Your task to perform on an android device: toggle priority inbox in the gmail app Image 0: 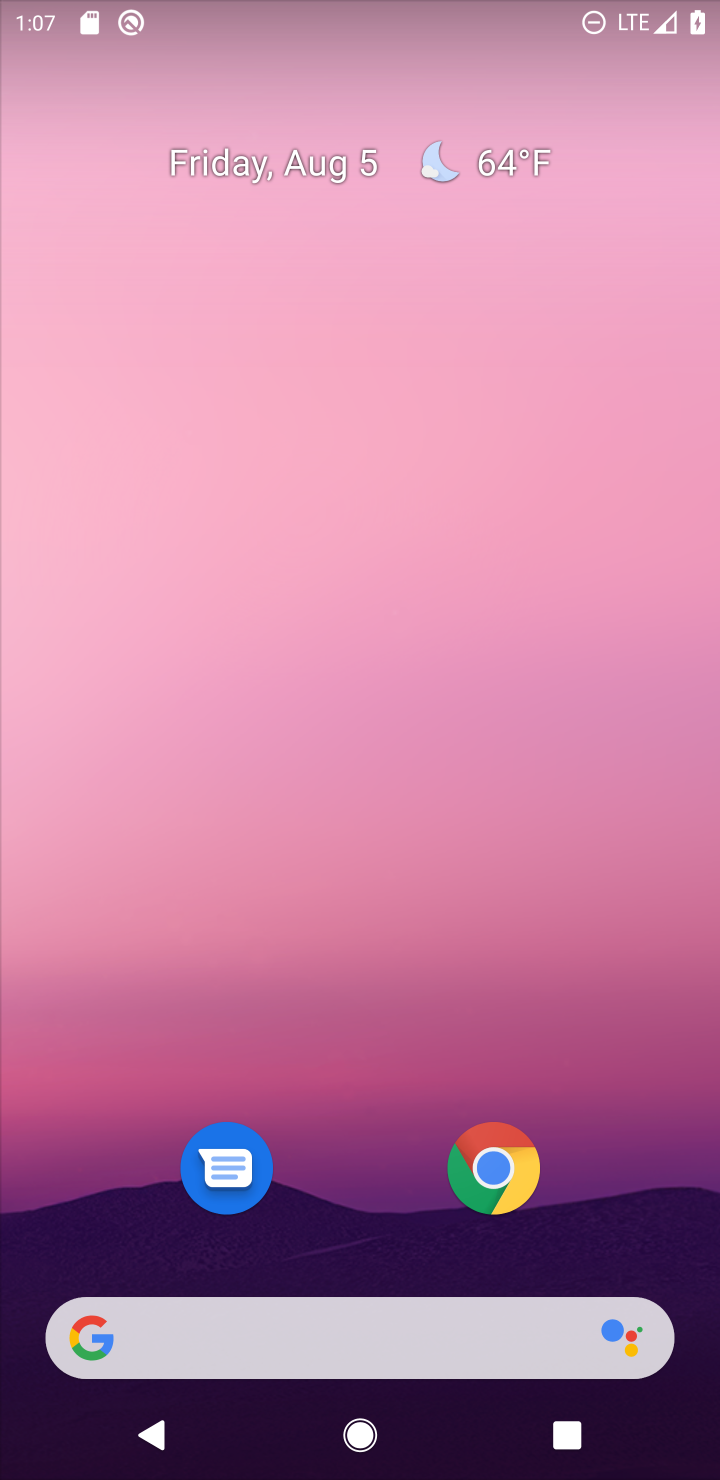
Step 0: drag from (610, 1200) to (455, 7)
Your task to perform on an android device: toggle priority inbox in the gmail app Image 1: 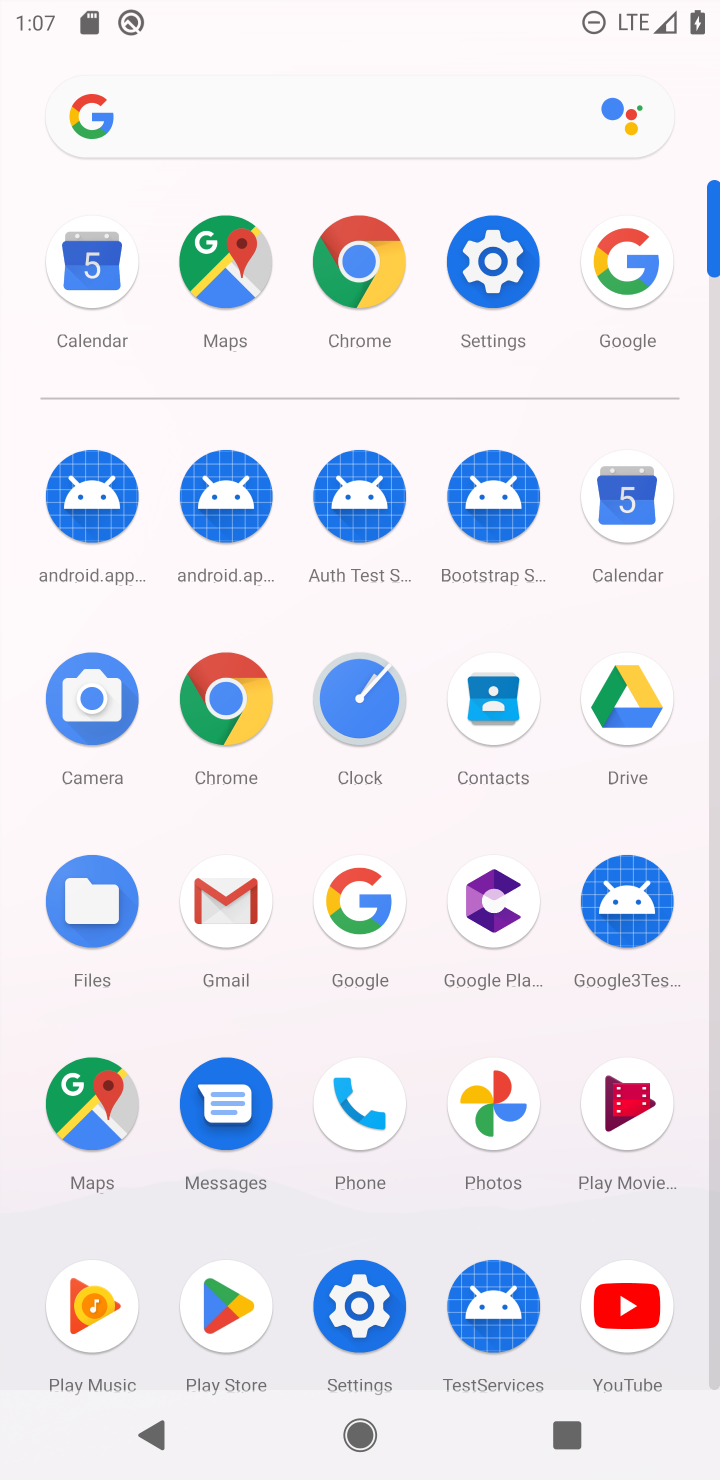
Step 1: click (234, 952)
Your task to perform on an android device: toggle priority inbox in the gmail app Image 2: 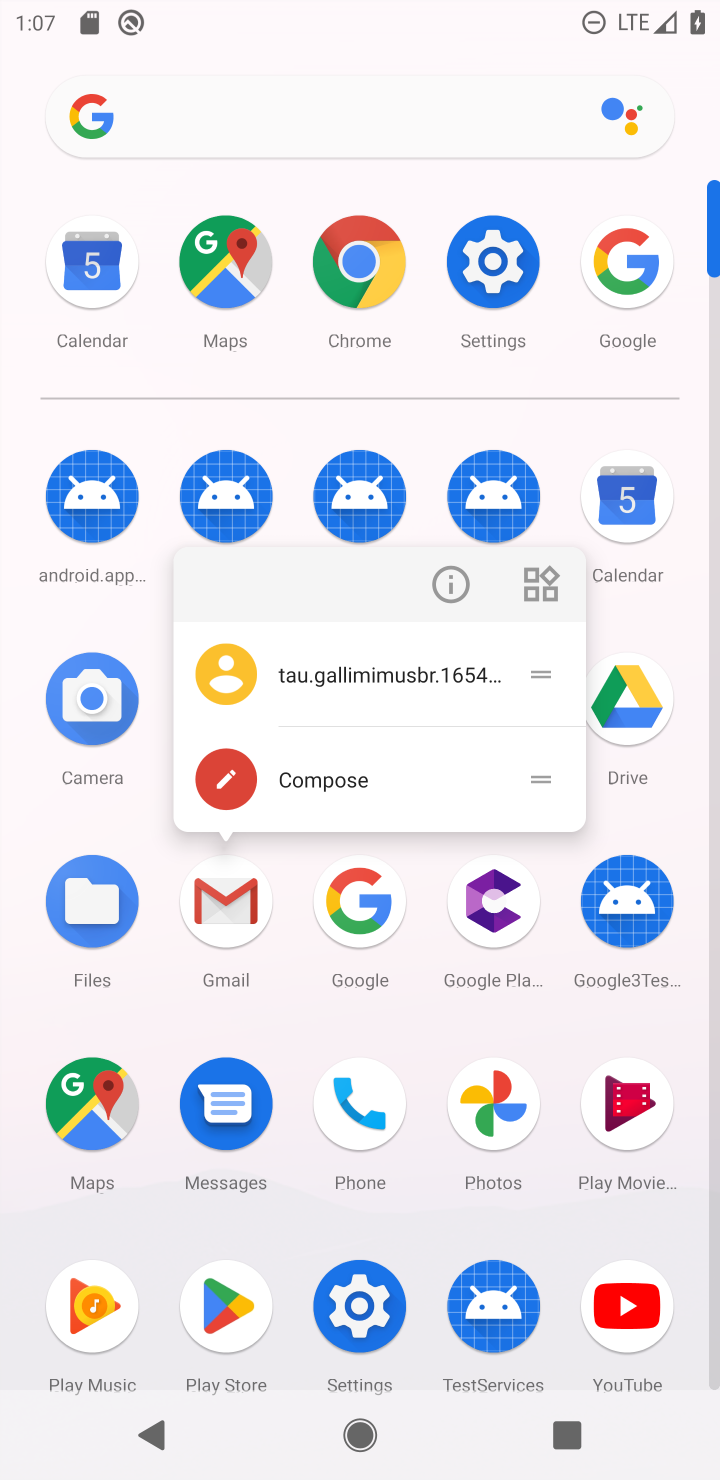
Step 2: click (233, 949)
Your task to perform on an android device: toggle priority inbox in the gmail app Image 3: 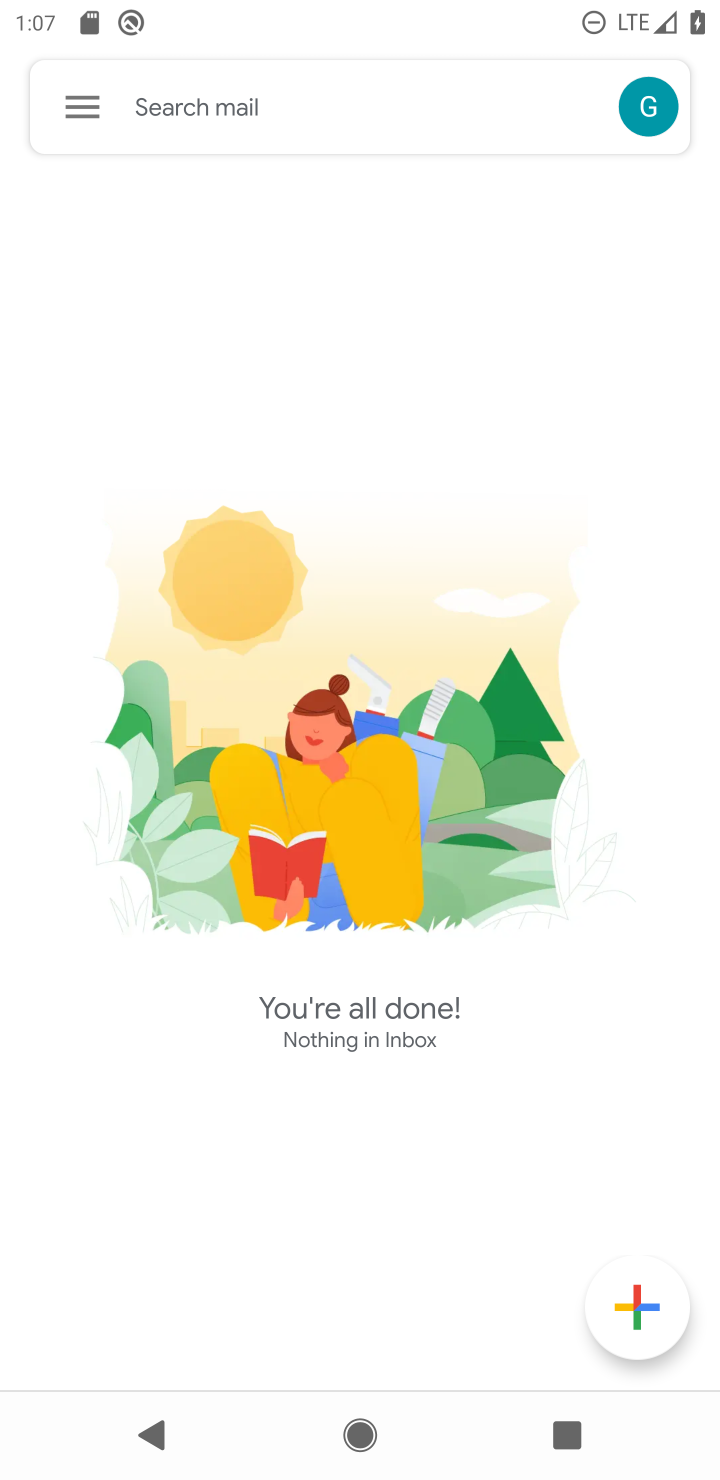
Step 3: click (97, 109)
Your task to perform on an android device: toggle priority inbox in the gmail app Image 4: 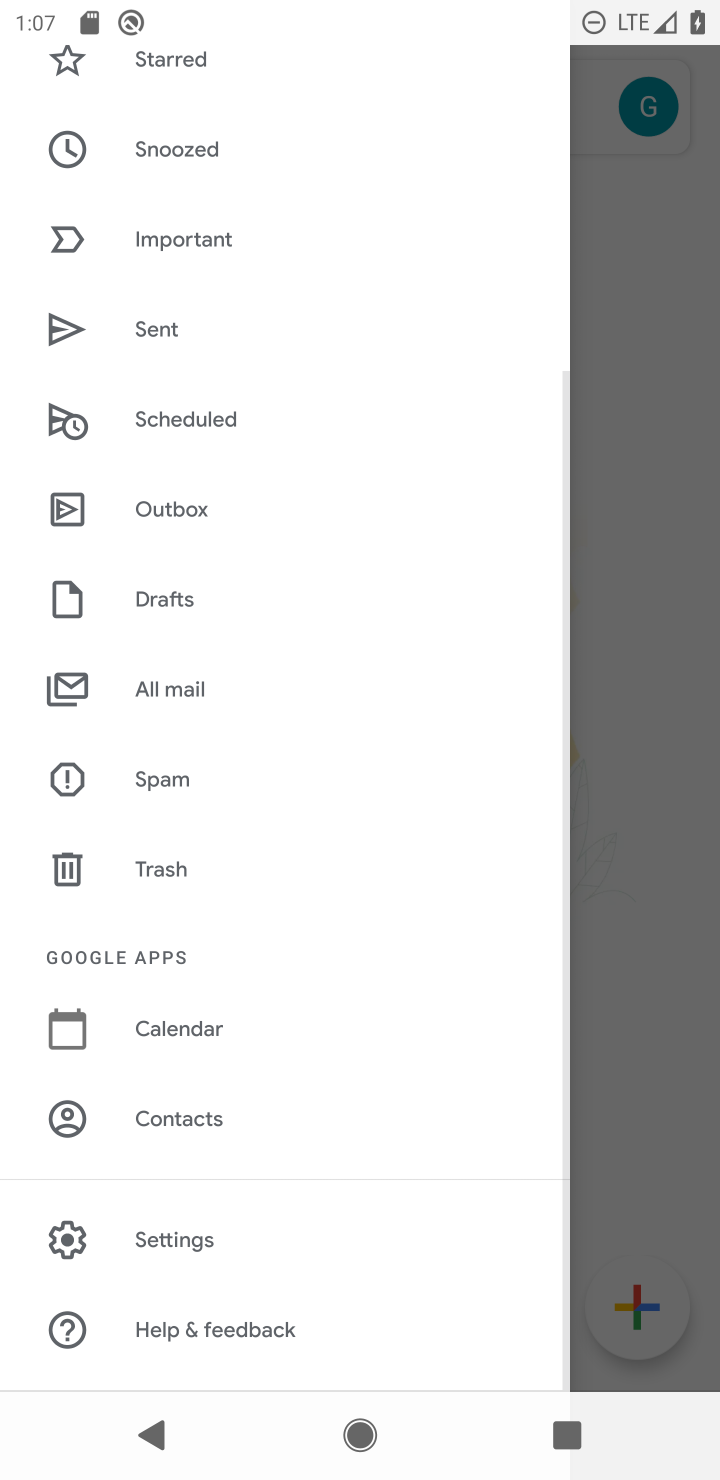
Step 4: click (186, 1255)
Your task to perform on an android device: toggle priority inbox in the gmail app Image 5: 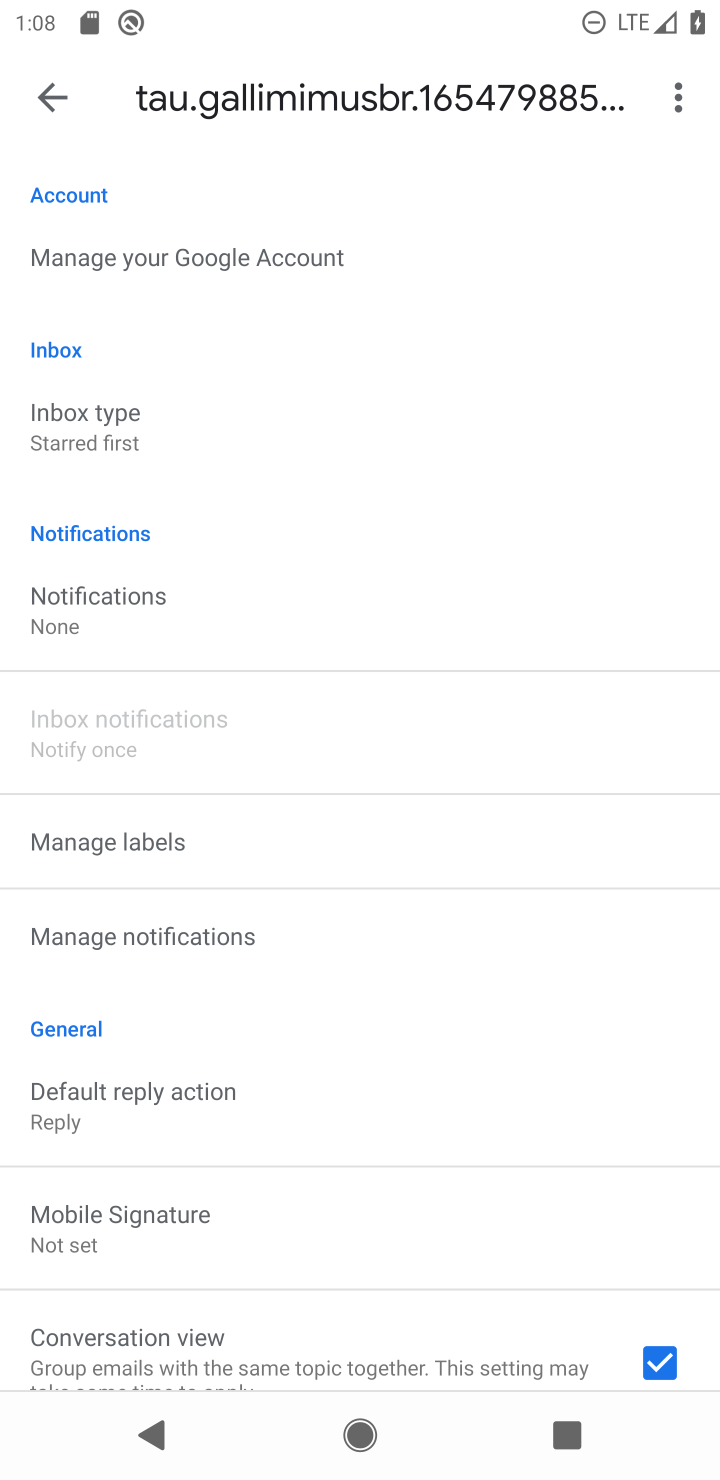
Step 5: click (101, 419)
Your task to perform on an android device: toggle priority inbox in the gmail app Image 6: 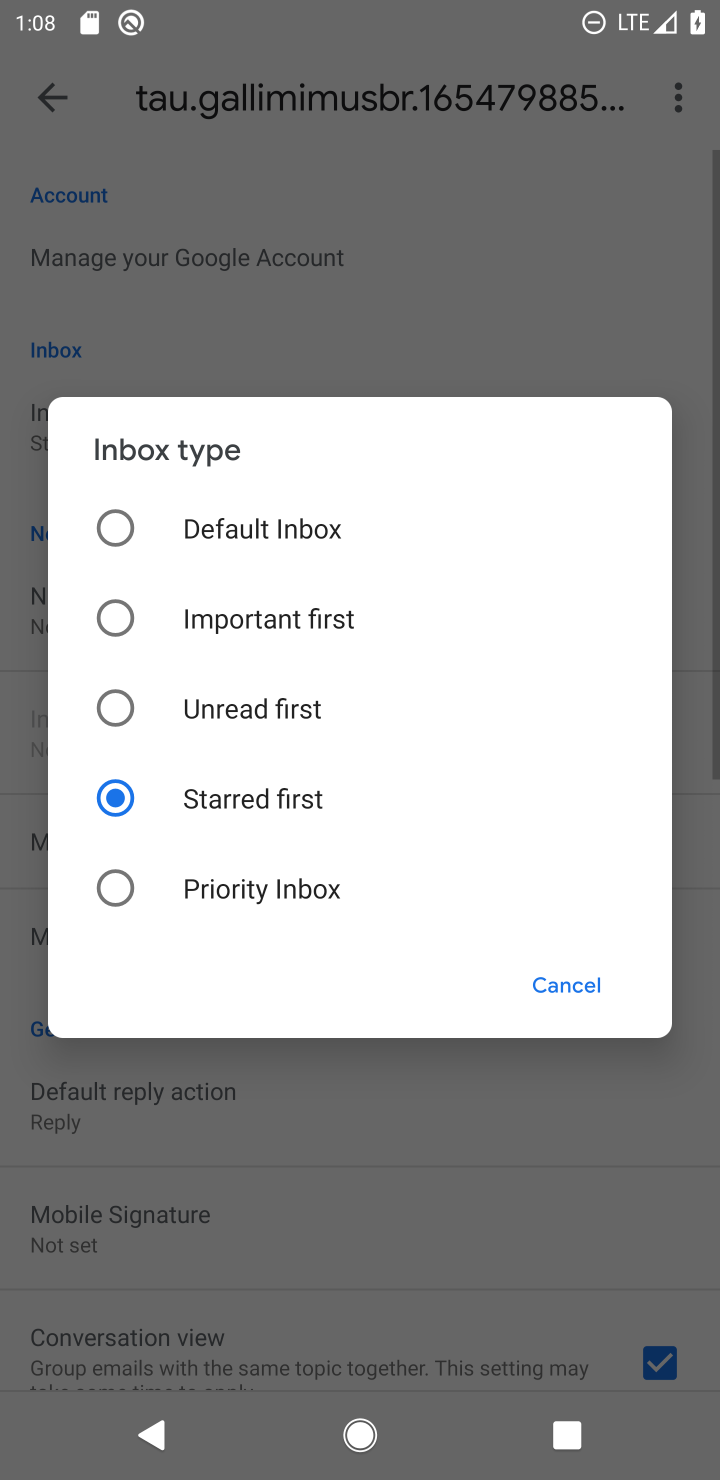
Step 6: click (129, 510)
Your task to perform on an android device: toggle priority inbox in the gmail app Image 7: 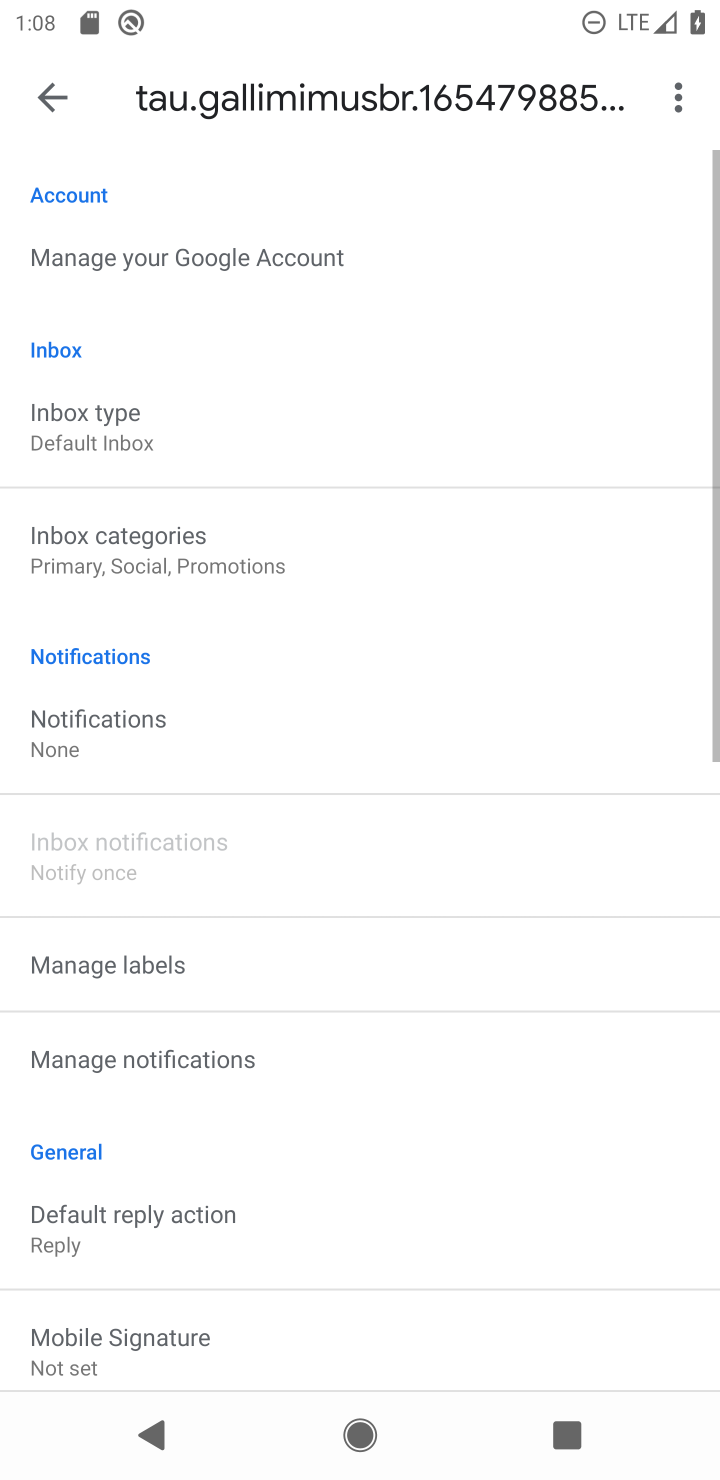
Step 7: task complete